Your task to perform on an android device: add a label to a message in the gmail app Image 0: 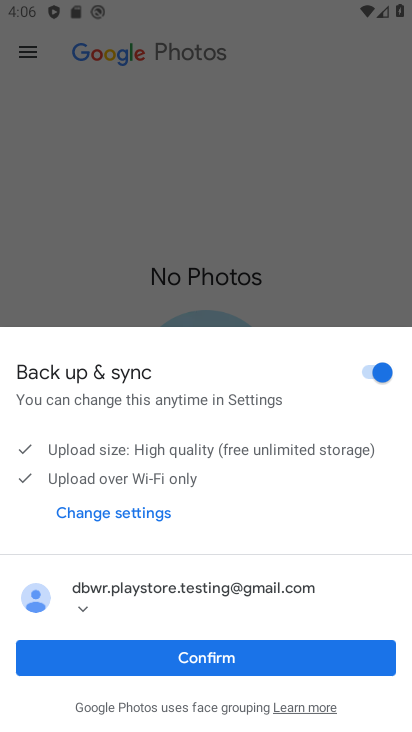
Step 0: press home button
Your task to perform on an android device: add a label to a message in the gmail app Image 1: 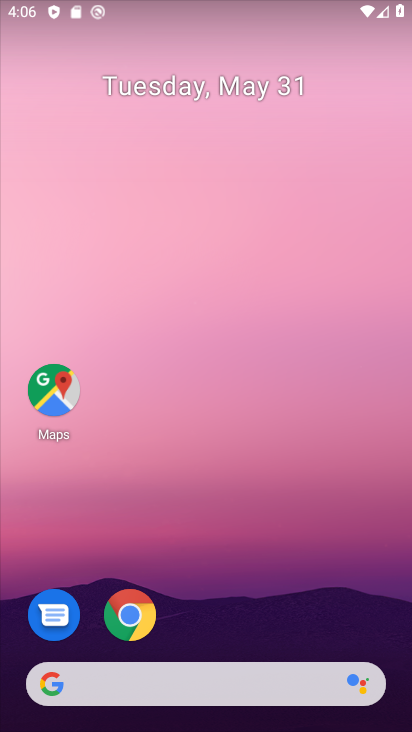
Step 1: drag from (234, 656) to (348, 87)
Your task to perform on an android device: add a label to a message in the gmail app Image 2: 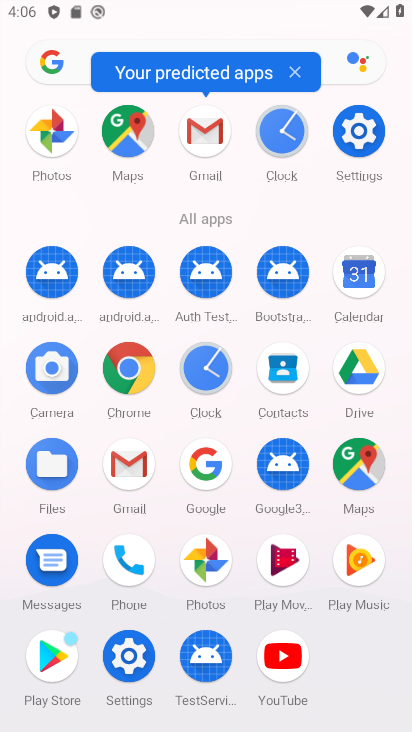
Step 2: click (149, 471)
Your task to perform on an android device: add a label to a message in the gmail app Image 3: 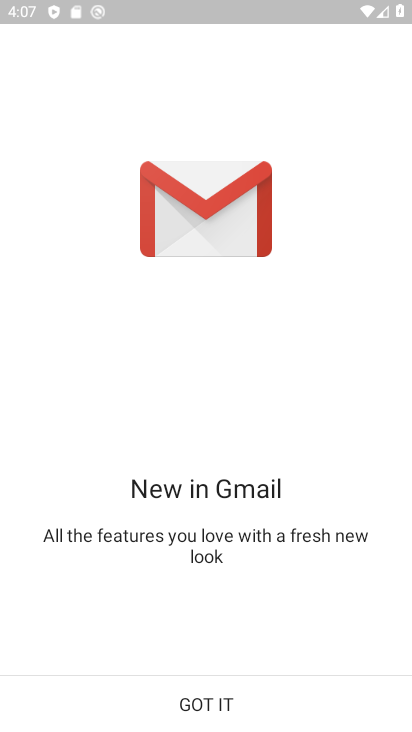
Step 3: click (234, 696)
Your task to perform on an android device: add a label to a message in the gmail app Image 4: 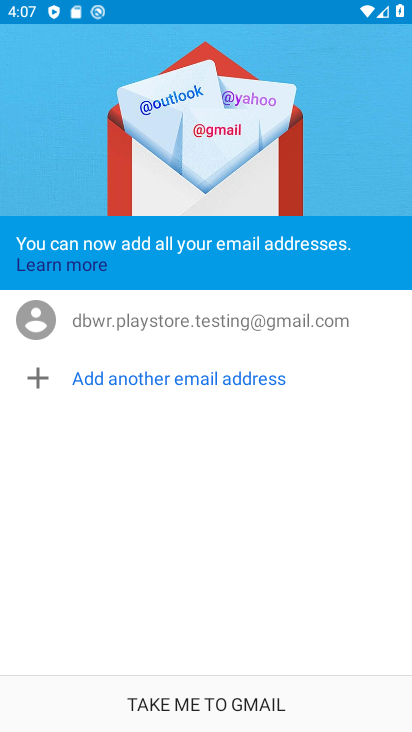
Step 4: click (230, 693)
Your task to perform on an android device: add a label to a message in the gmail app Image 5: 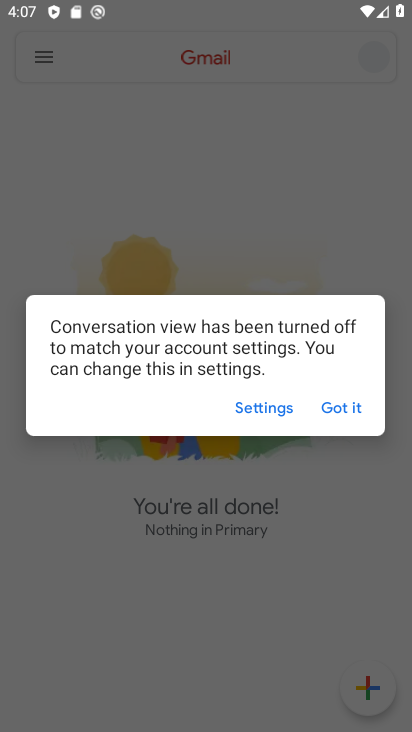
Step 5: click (359, 412)
Your task to perform on an android device: add a label to a message in the gmail app Image 6: 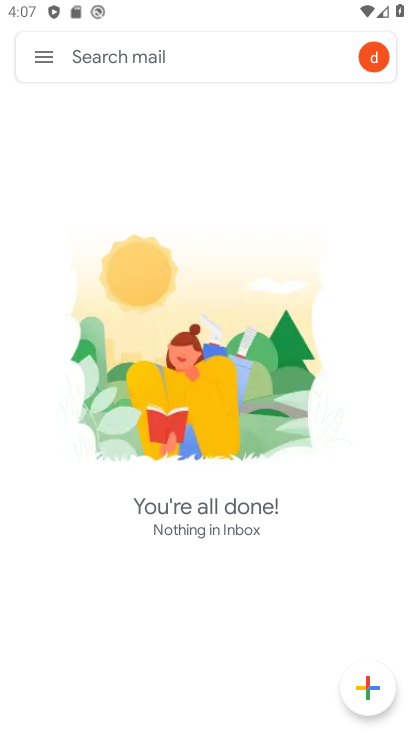
Step 6: click (51, 58)
Your task to perform on an android device: add a label to a message in the gmail app Image 7: 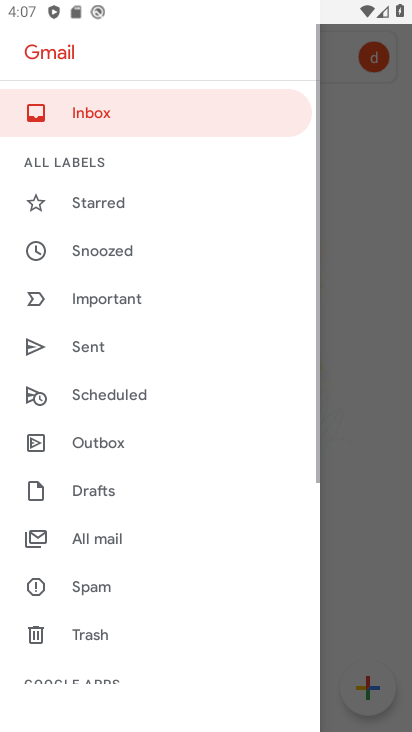
Step 7: drag from (143, 629) to (225, 216)
Your task to perform on an android device: add a label to a message in the gmail app Image 8: 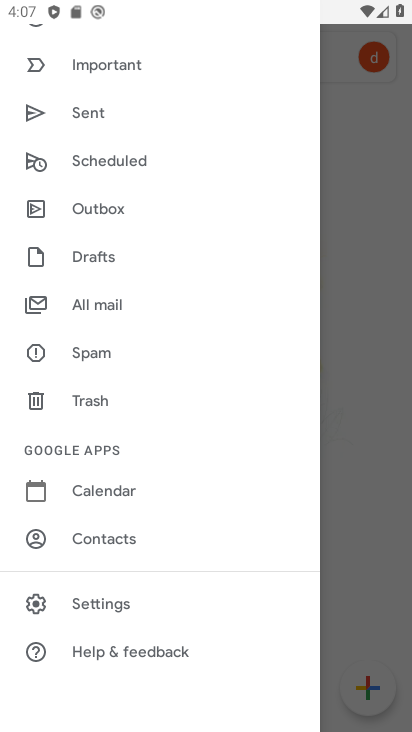
Step 8: click (132, 307)
Your task to perform on an android device: add a label to a message in the gmail app Image 9: 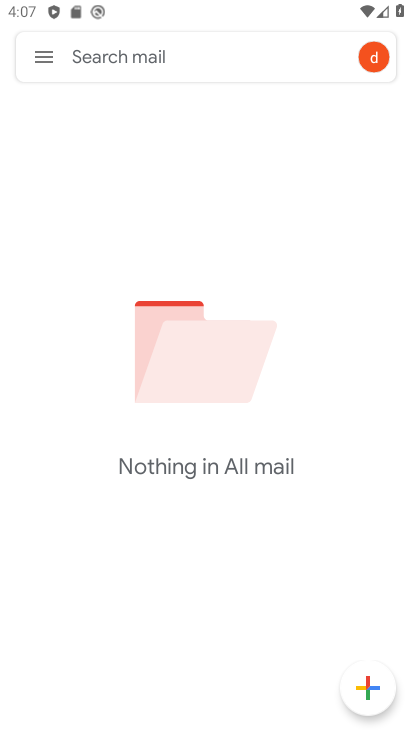
Step 9: task complete